Your task to perform on an android device: Go to CNN.com Image 0: 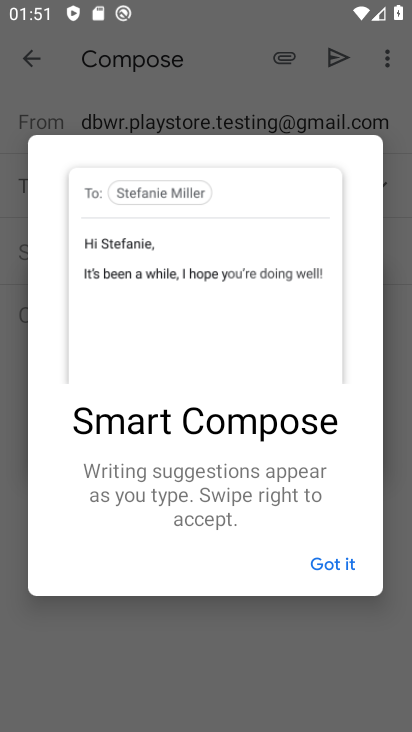
Step 0: press home button
Your task to perform on an android device: Go to CNN.com Image 1: 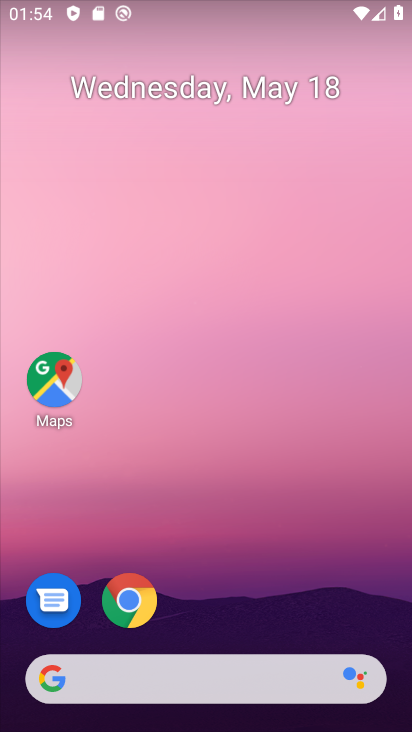
Step 1: drag from (193, 656) to (195, 348)
Your task to perform on an android device: Go to CNN.com Image 2: 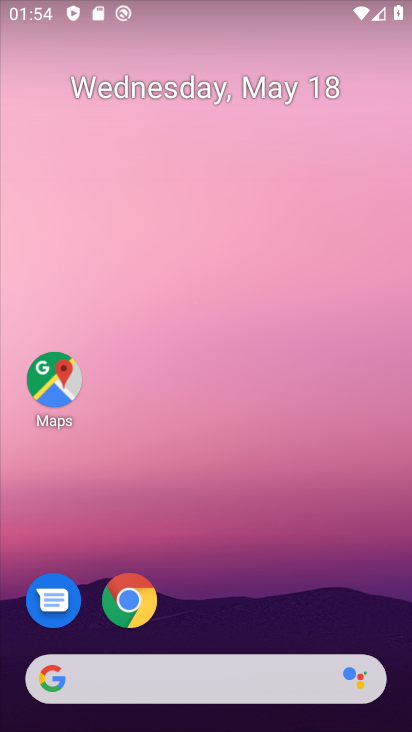
Step 2: drag from (265, 651) to (251, 245)
Your task to perform on an android device: Go to CNN.com Image 3: 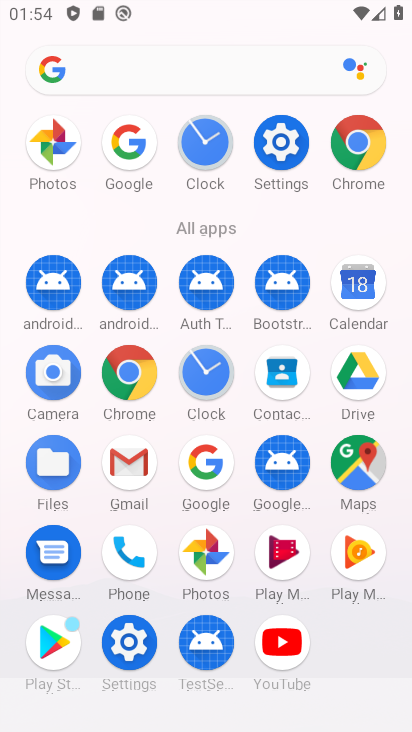
Step 3: click (125, 149)
Your task to perform on an android device: Go to CNN.com Image 4: 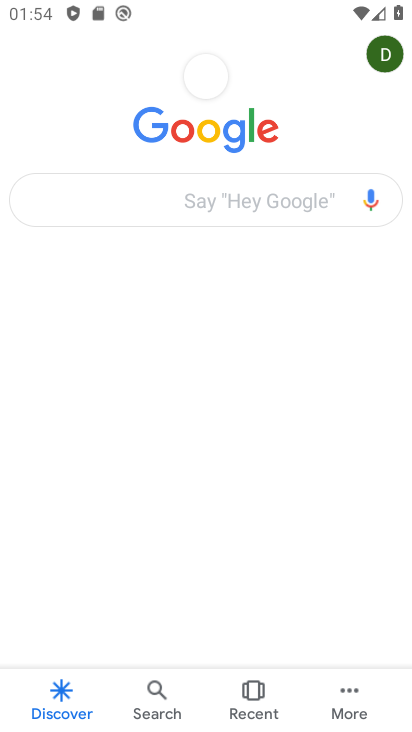
Step 4: click (118, 204)
Your task to perform on an android device: Go to CNN.com Image 5: 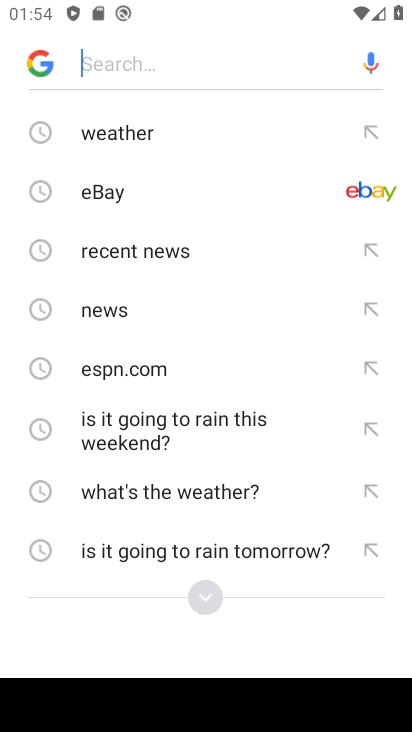
Step 5: drag from (163, 514) to (181, 171)
Your task to perform on an android device: Go to CNN.com Image 6: 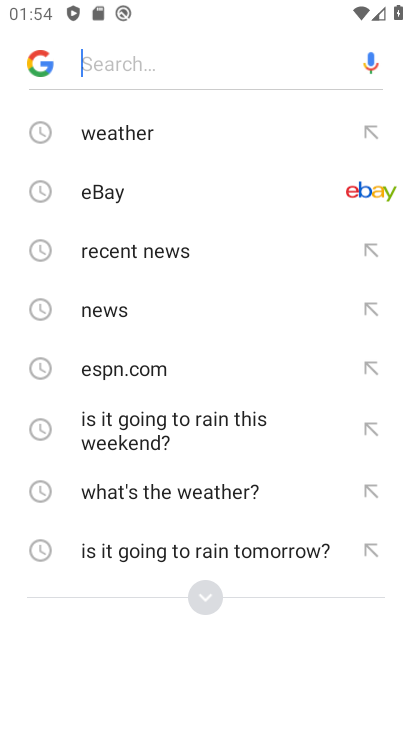
Step 6: drag from (110, 574) to (169, 331)
Your task to perform on an android device: Go to CNN.com Image 7: 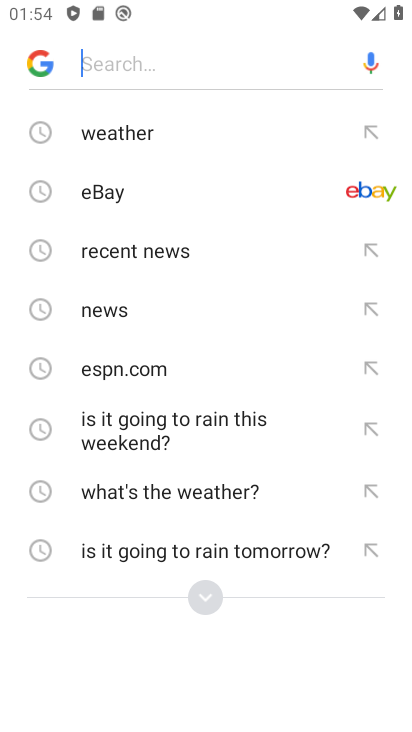
Step 7: click (204, 594)
Your task to perform on an android device: Go to CNN.com Image 8: 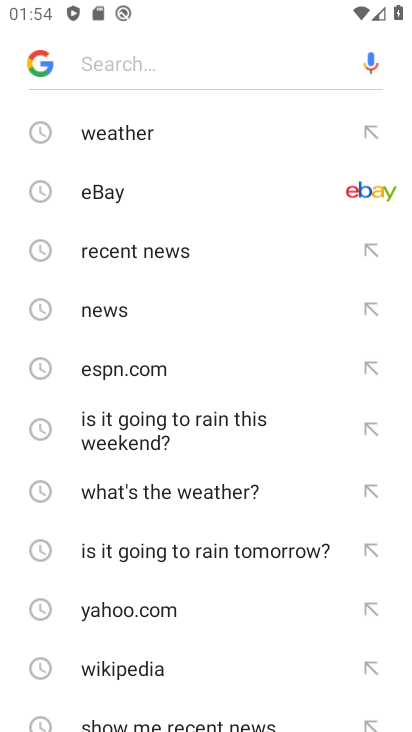
Step 8: drag from (161, 679) to (193, 402)
Your task to perform on an android device: Go to CNN.com Image 9: 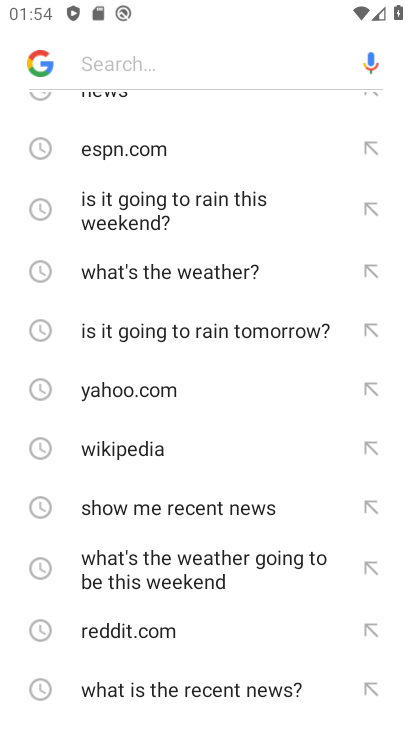
Step 9: drag from (183, 693) to (181, 443)
Your task to perform on an android device: Go to CNN.com Image 10: 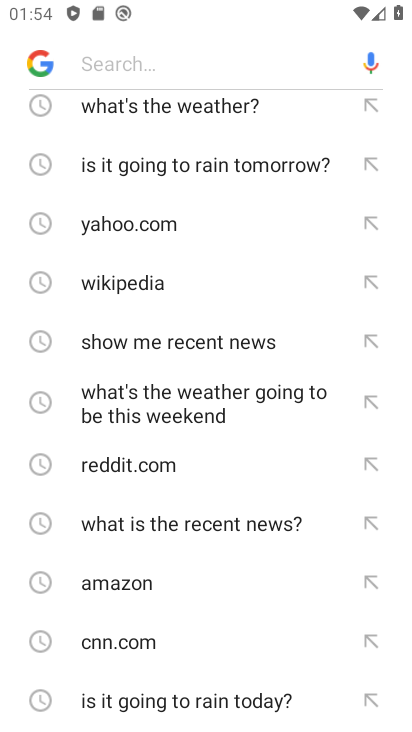
Step 10: click (124, 642)
Your task to perform on an android device: Go to CNN.com Image 11: 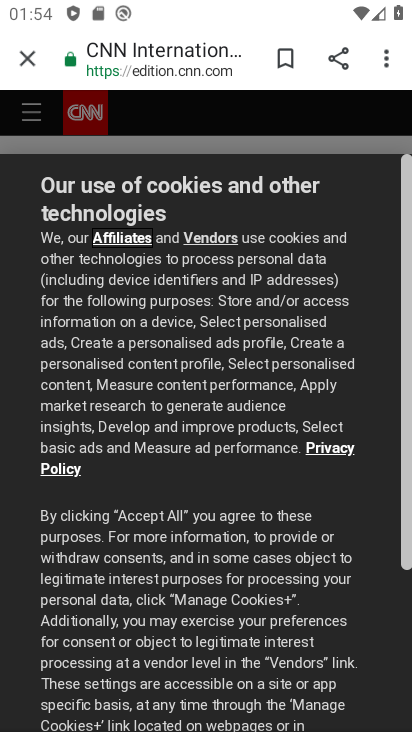
Step 11: task complete